Your task to perform on an android device: turn pop-ups on in chrome Image 0: 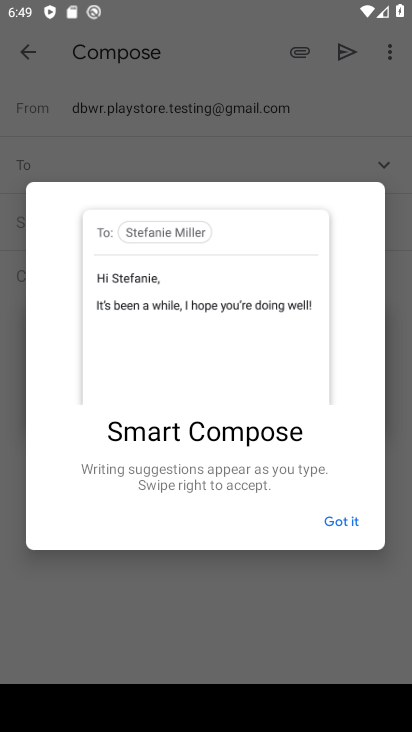
Step 0: press home button
Your task to perform on an android device: turn pop-ups on in chrome Image 1: 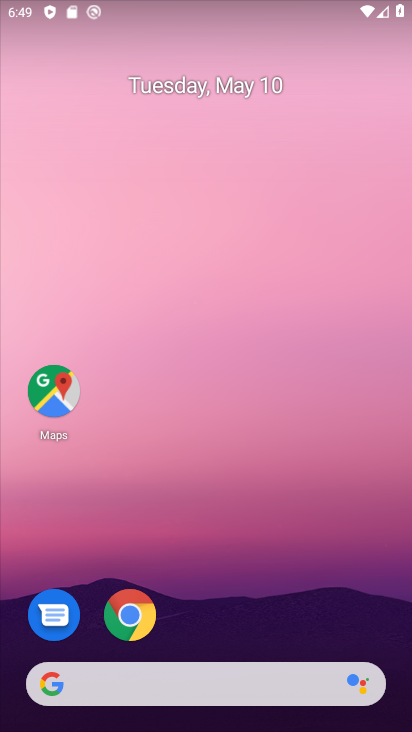
Step 1: click (127, 607)
Your task to perform on an android device: turn pop-ups on in chrome Image 2: 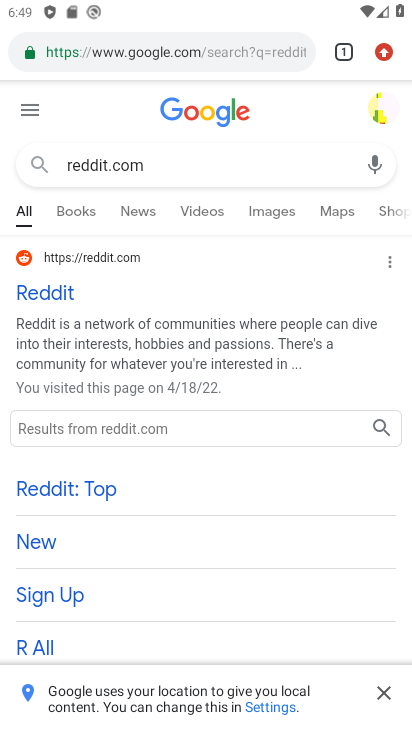
Step 2: click (384, 47)
Your task to perform on an android device: turn pop-ups on in chrome Image 3: 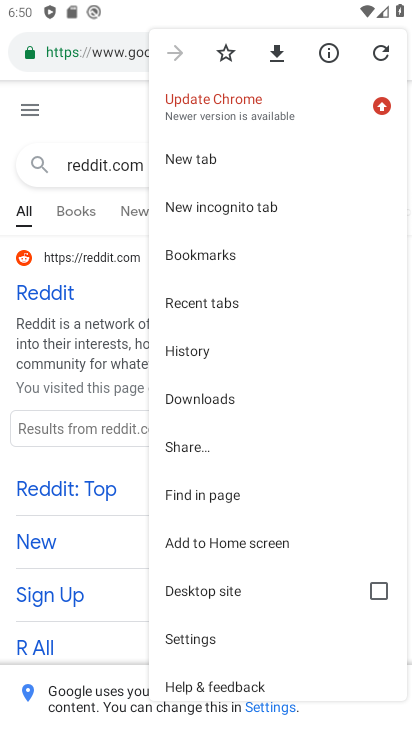
Step 3: click (199, 630)
Your task to perform on an android device: turn pop-ups on in chrome Image 4: 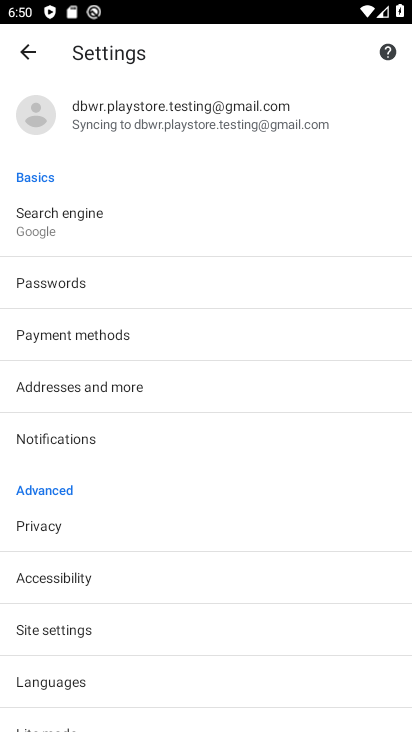
Step 4: drag from (168, 601) to (123, 418)
Your task to perform on an android device: turn pop-ups on in chrome Image 5: 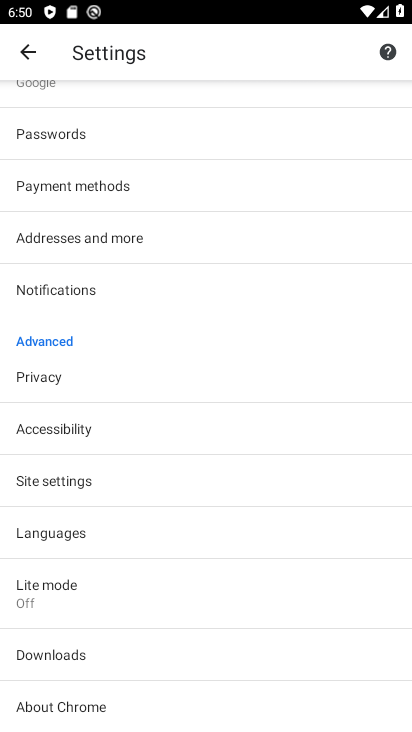
Step 5: click (49, 482)
Your task to perform on an android device: turn pop-ups on in chrome Image 6: 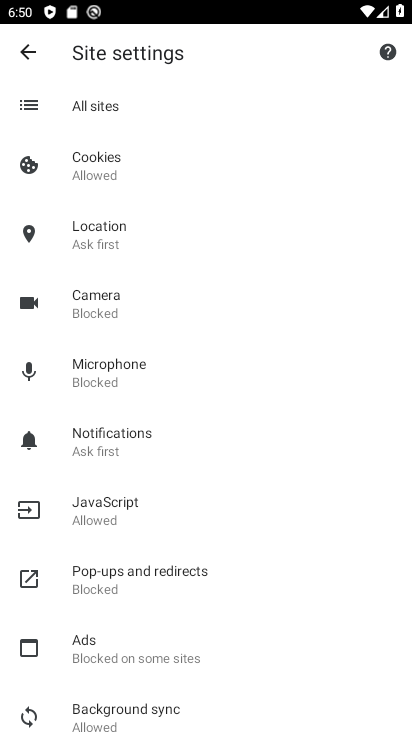
Step 6: click (109, 570)
Your task to perform on an android device: turn pop-ups on in chrome Image 7: 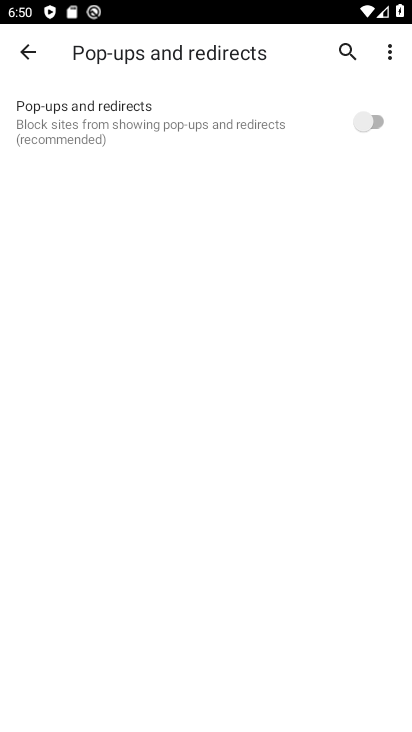
Step 7: click (370, 117)
Your task to perform on an android device: turn pop-ups on in chrome Image 8: 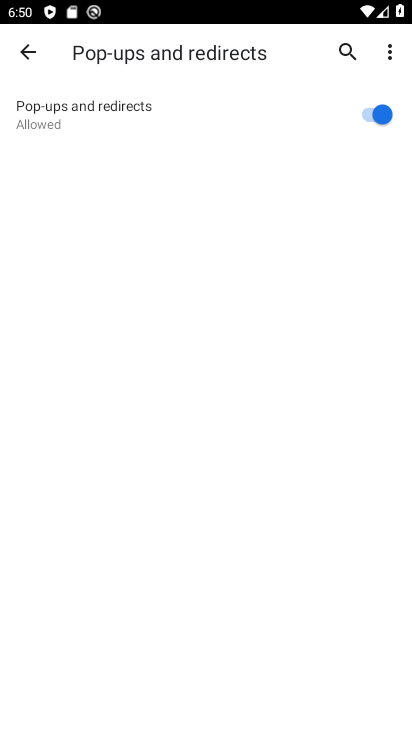
Step 8: task complete